Your task to perform on an android device: Search for vegetarian restaurants on Maps Image 0: 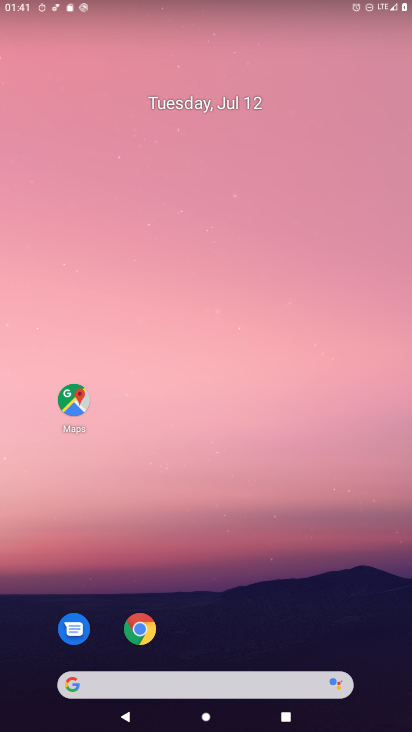
Step 0: click (76, 400)
Your task to perform on an android device: Search for vegetarian restaurants on Maps Image 1: 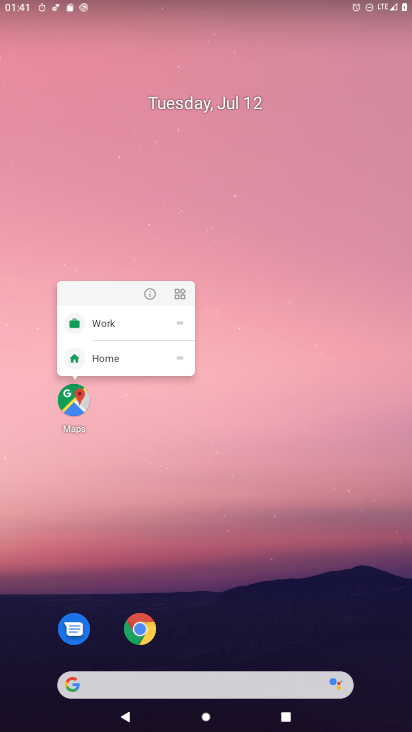
Step 1: click (65, 406)
Your task to perform on an android device: Search for vegetarian restaurants on Maps Image 2: 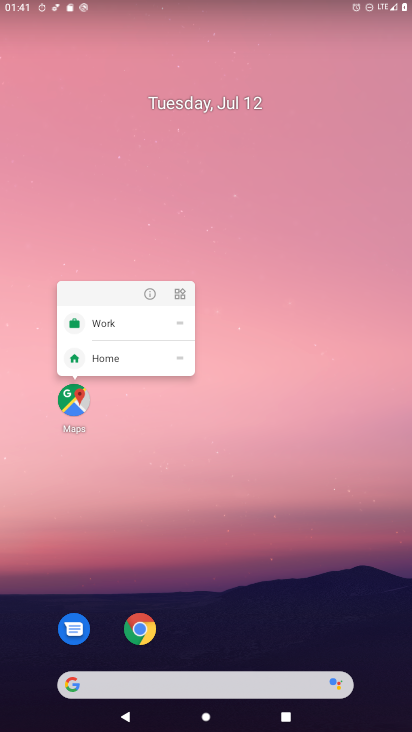
Step 2: click (65, 405)
Your task to perform on an android device: Search for vegetarian restaurants on Maps Image 3: 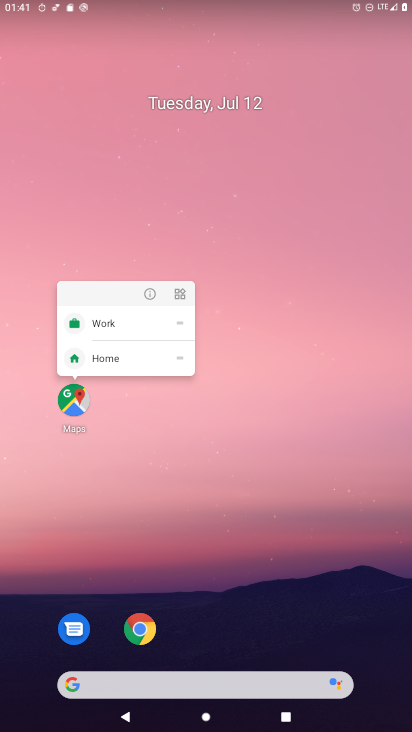
Step 3: click (82, 398)
Your task to perform on an android device: Search for vegetarian restaurants on Maps Image 4: 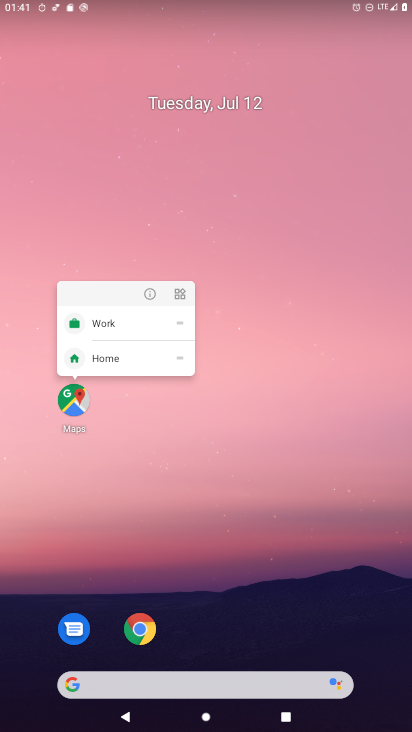
Step 4: click (79, 396)
Your task to perform on an android device: Search for vegetarian restaurants on Maps Image 5: 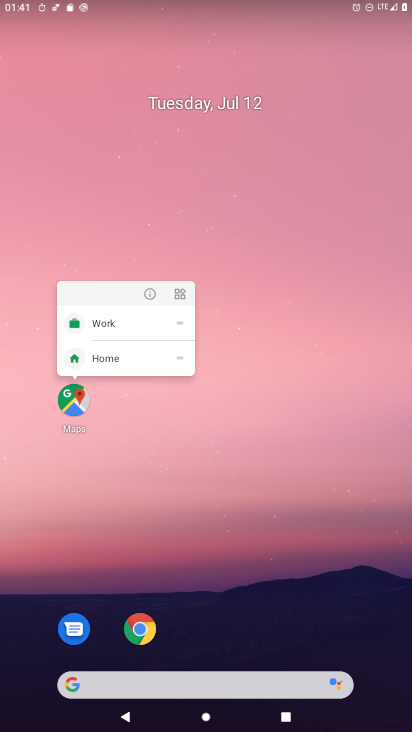
Step 5: click (65, 396)
Your task to perform on an android device: Search for vegetarian restaurants on Maps Image 6: 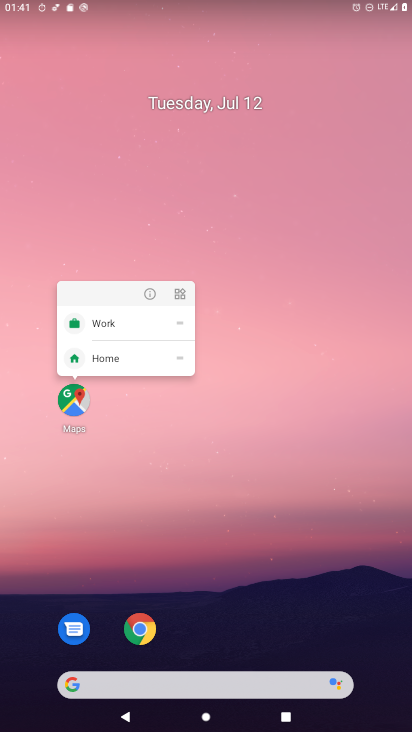
Step 6: task complete